Your task to perform on an android device: Open internet settings Image 0: 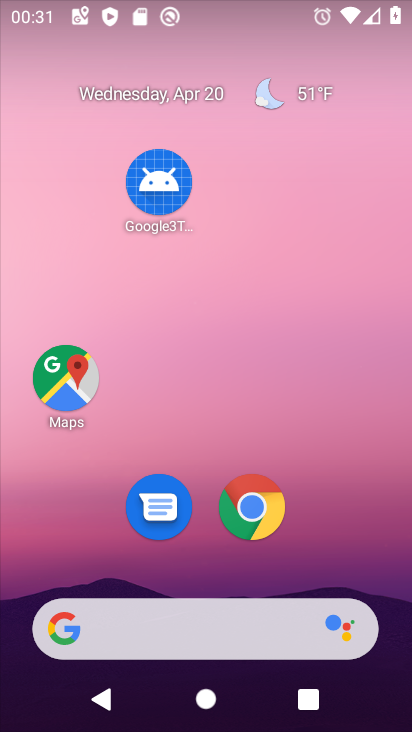
Step 0: drag from (218, 554) to (411, 123)
Your task to perform on an android device: Open internet settings Image 1: 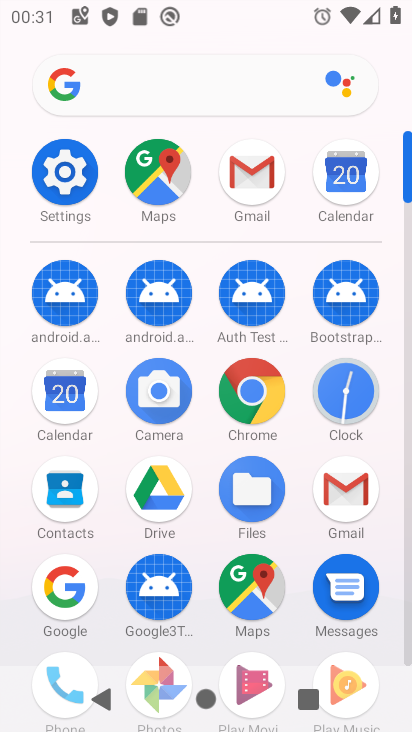
Step 1: click (67, 173)
Your task to perform on an android device: Open internet settings Image 2: 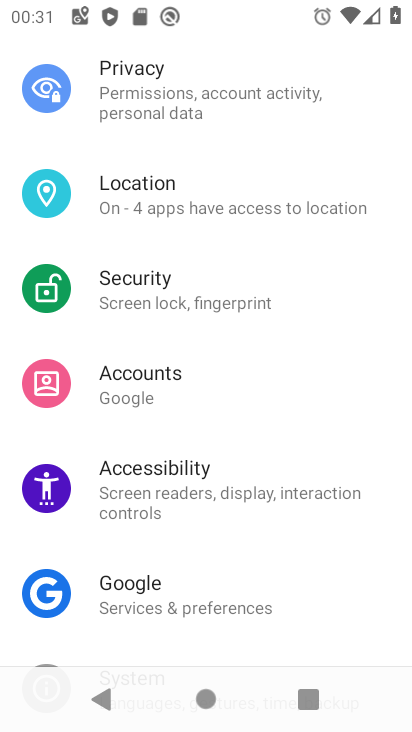
Step 2: drag from (217, 136) to (198, 648)
Your task to perform on an android device: Open internet settings Image 3: 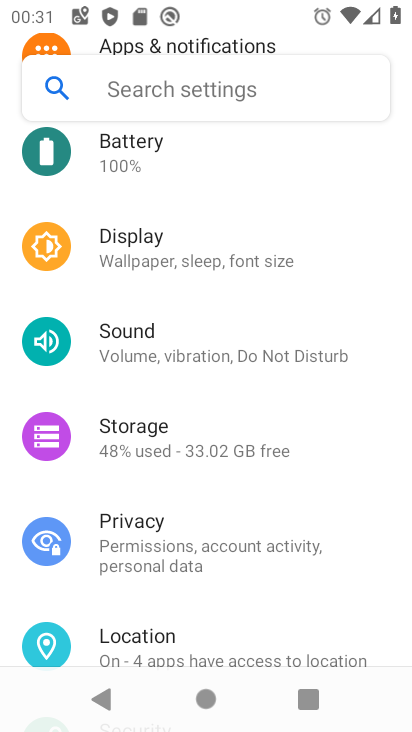
Step 3: drag from (218, 195) to (206, 694)
Your task to perform on an android device: Open internet settings Image 4: 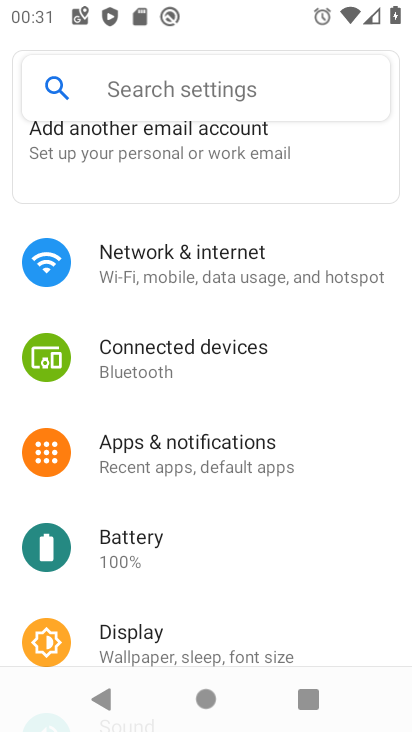
Step 4: click (161, 251)
Your task to perform on an android device: Open internet settings Image 5: 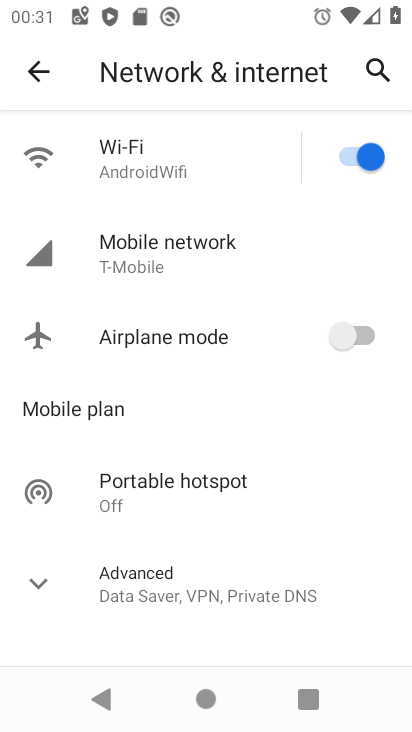
Step 5: click (165, 246)
Your task to perform on an android device: Open internet settings Image 6: 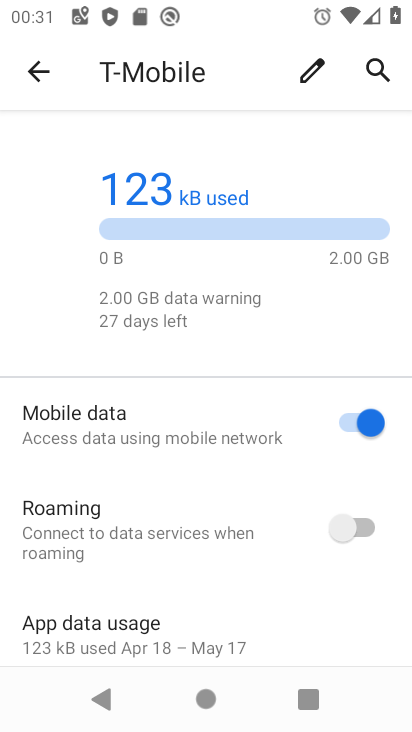
Step 6: task complete